Your task to perform on an android device: open app "Viber Messenger" Image 0: 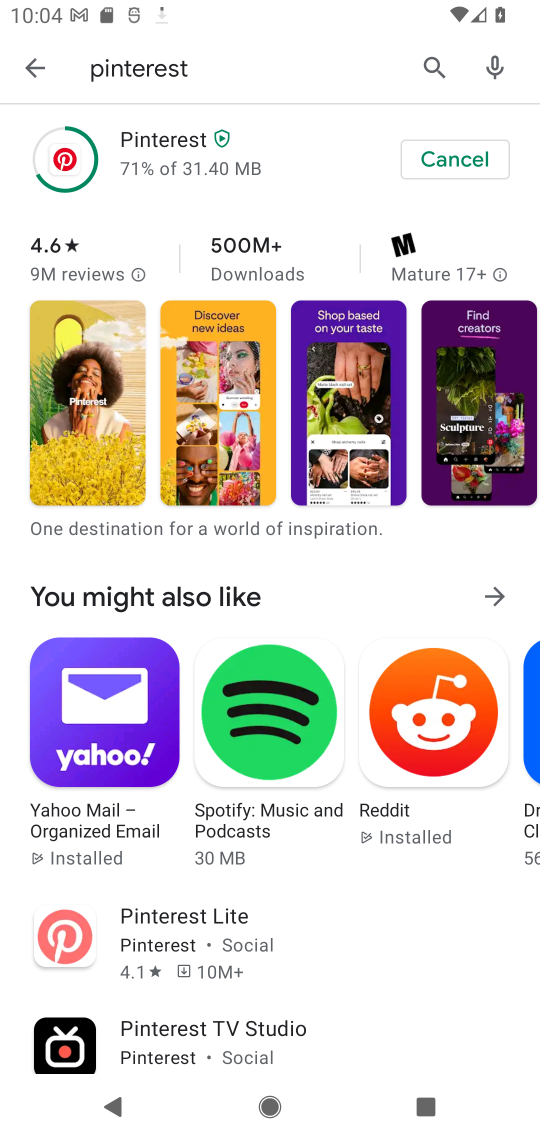
Step 0: press home button
Your task to perform on an android device: open app "Viber Messenger" Image 1: 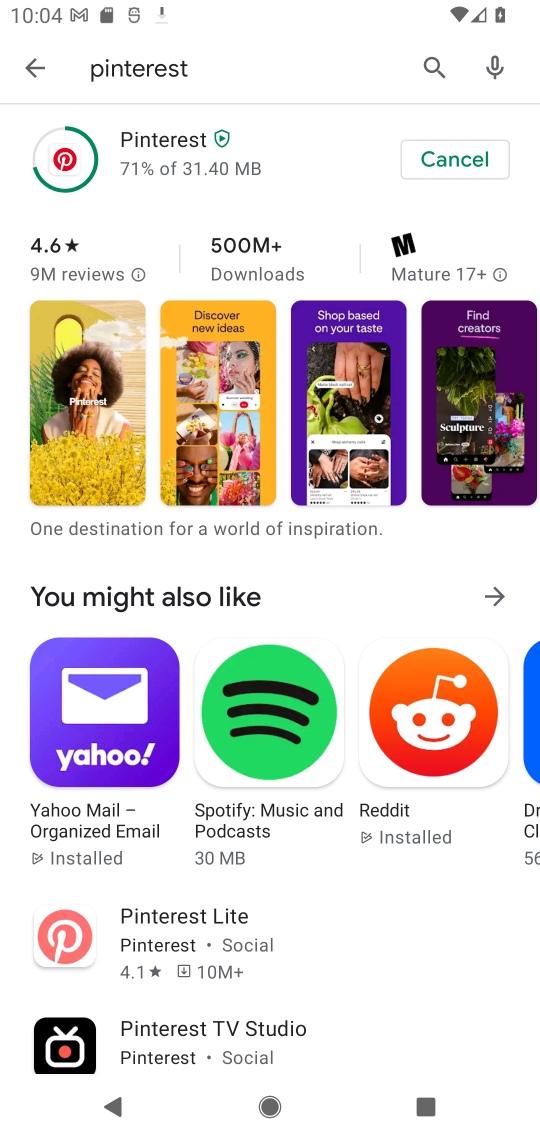
Step 1: press home button
Your task to perform on an android device: open app "Viber Messenger" Image 2: 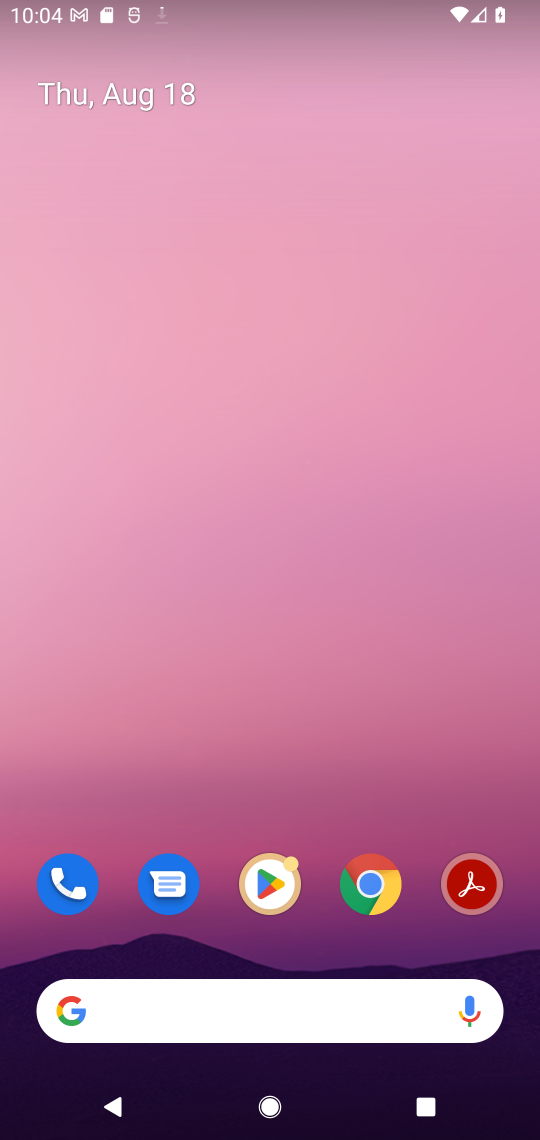
Step 2: click (264, 894)
Your task to perform on an android device: open app "Viber Messenger" Image 3: 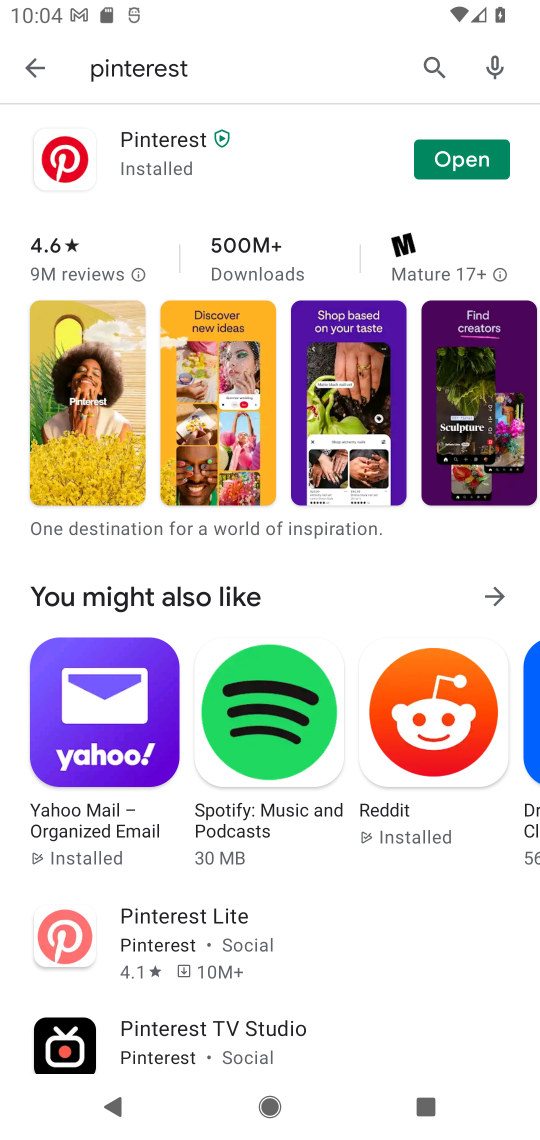
Step 3: click (429, 69)
Your task to perform on an android device: open app "Viber Messenger" Image 4: 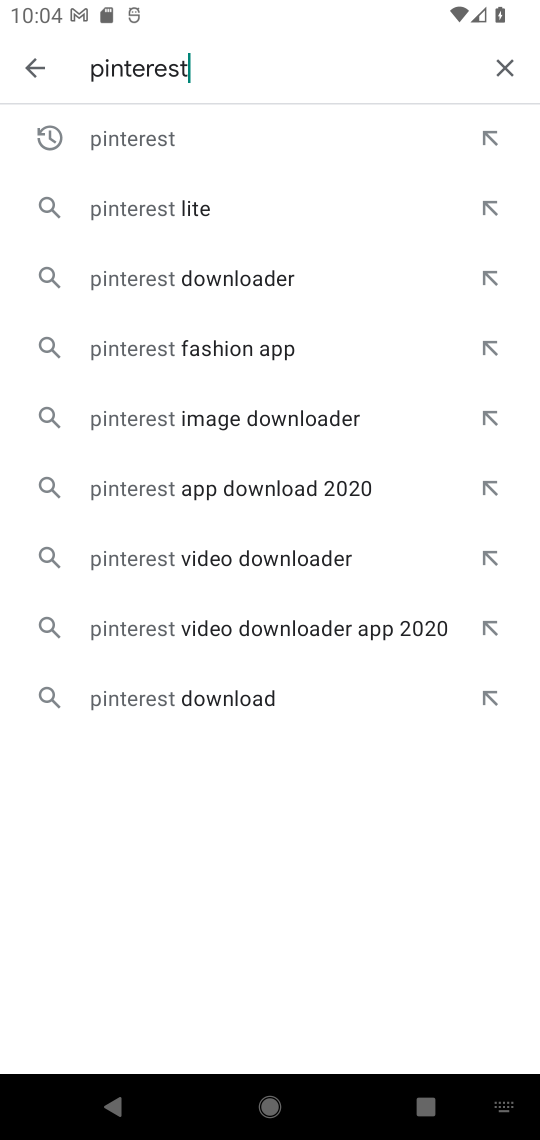
Step 4: click (503, 72)
Your task to perform on an android device: open app "Viber Messenger" Image 5: 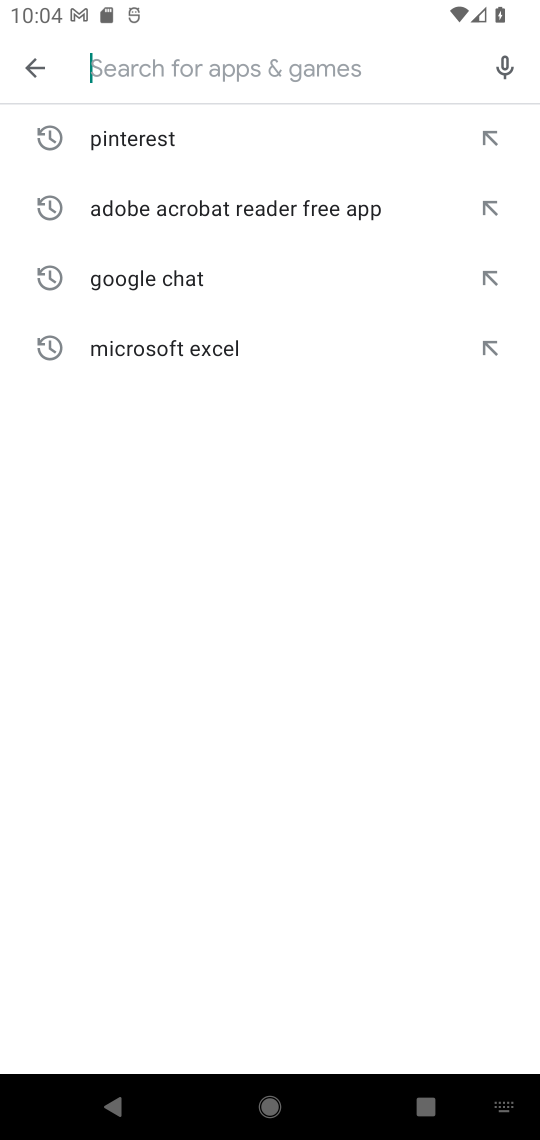
Step 5: type "viber"
Your task to perform on an android device: open app "Viber Messenger" Image 6: 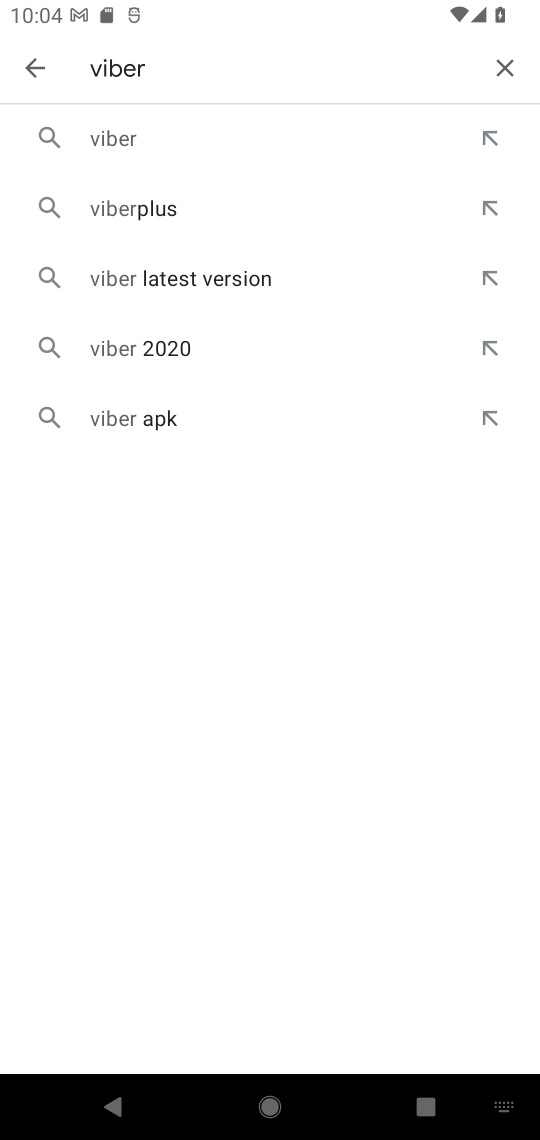
Step 6: click (139, 134)
Your task to perform on an android device: open app "Viber Messenger" Image 7: 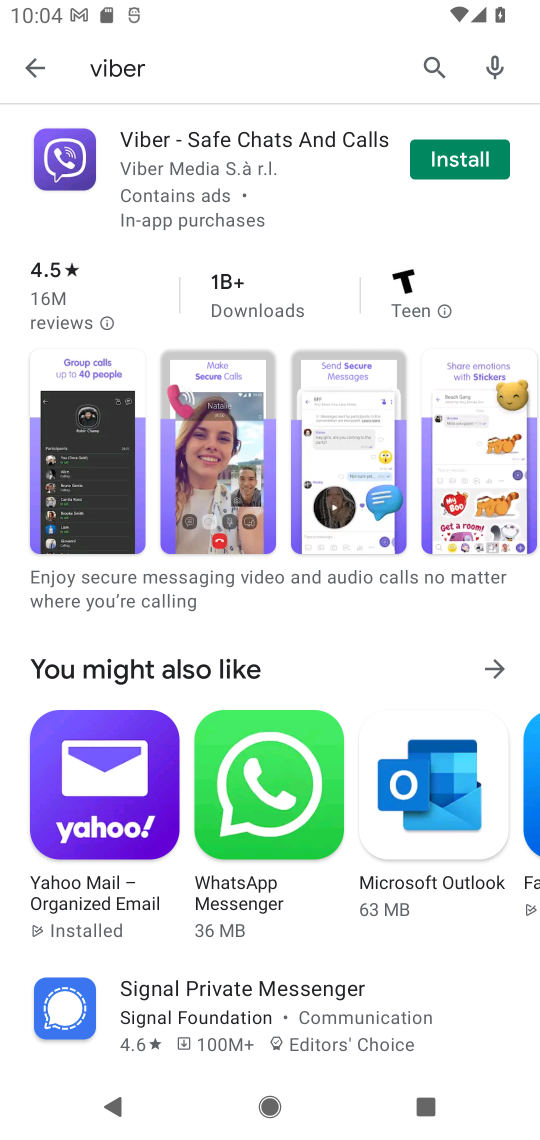
Step 7: click (424, 157)
Your task to perform on an android device: open app "Viber Messenger" Image 8: 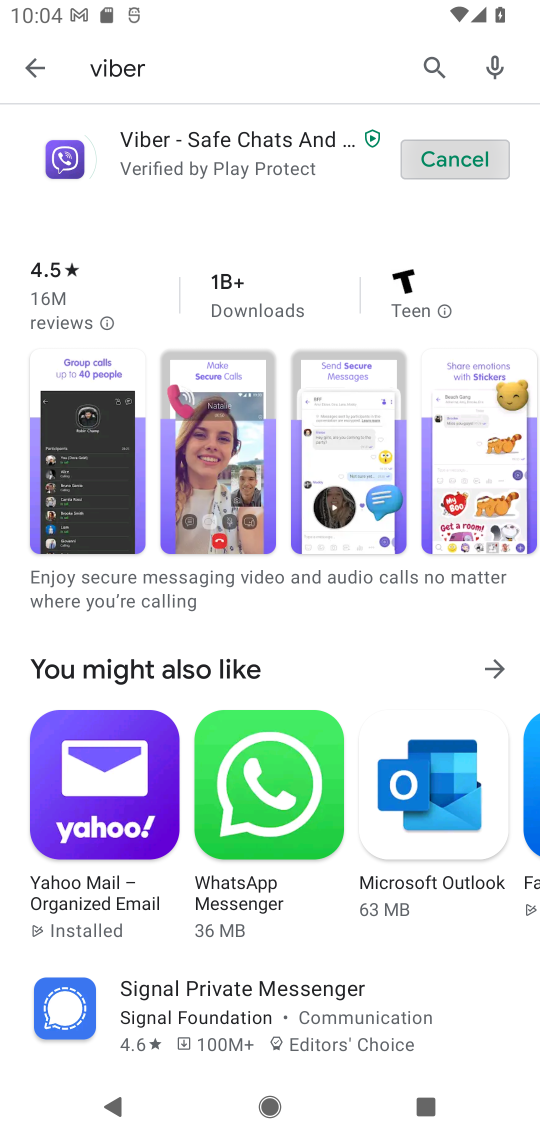
Step 8: task complete